Your task to perform on an android device: turn off data saver in the chrome app Image 0: 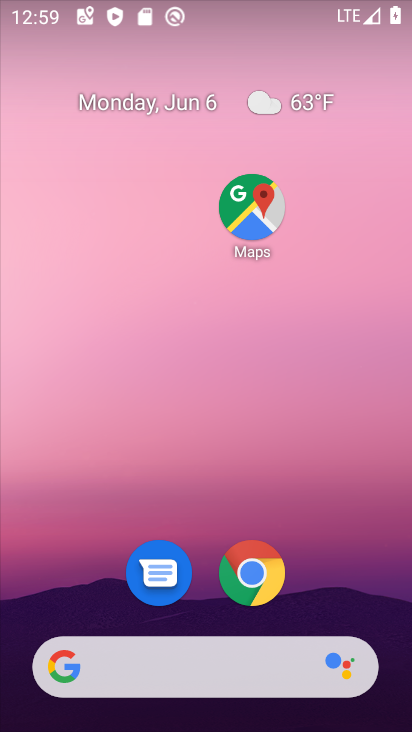
Step 0: drag from (222, 517) to (205, 0)
Your task to perform on an android device: turn off data saver in the chrome app Image 1: 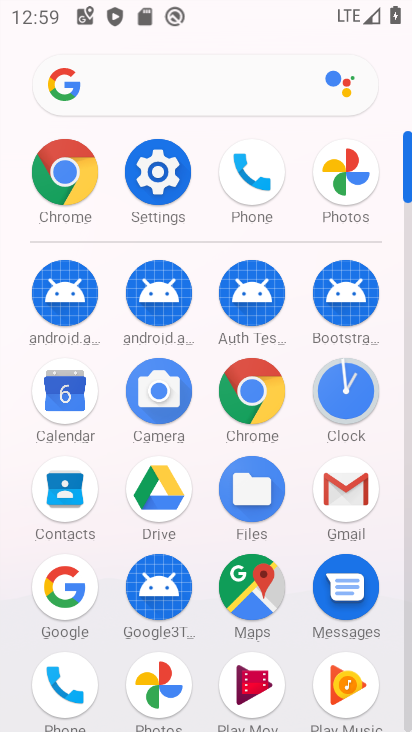
Step 1: click (237, 402)
Your task to perform on an android device: turn off data saver in the chrome app Image 2: 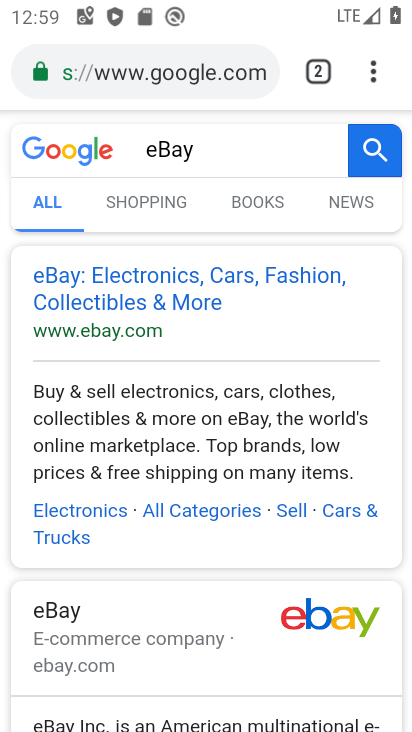
Step 2: click (376, 72)
Your task to perform on an android device: turn off data saver in the chrome app Image 3: 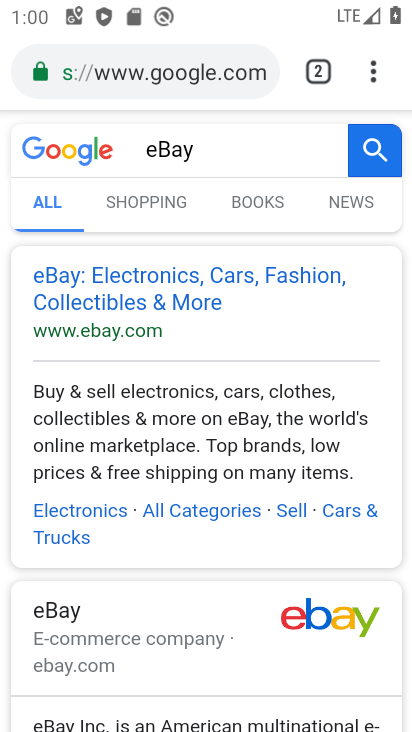
Step 3: click (370, 73)
Your task to perform on an android device: turn off data saver in the chrome app Image 4: 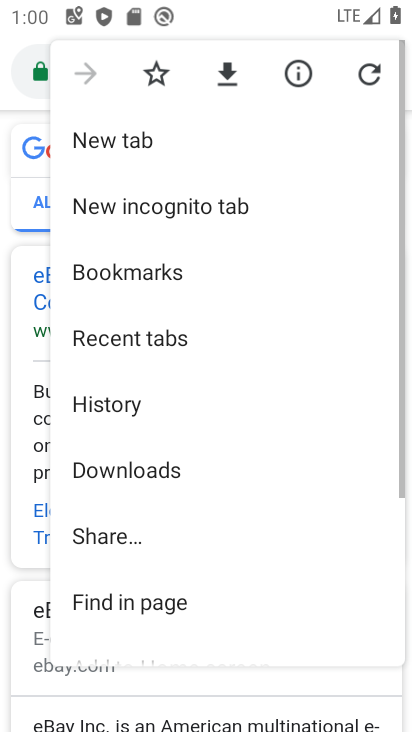
Step 4: drag from (152, 503) to (127, 72)
Your task to perform on an android device: turn off data saver in the chrome app Image 5: 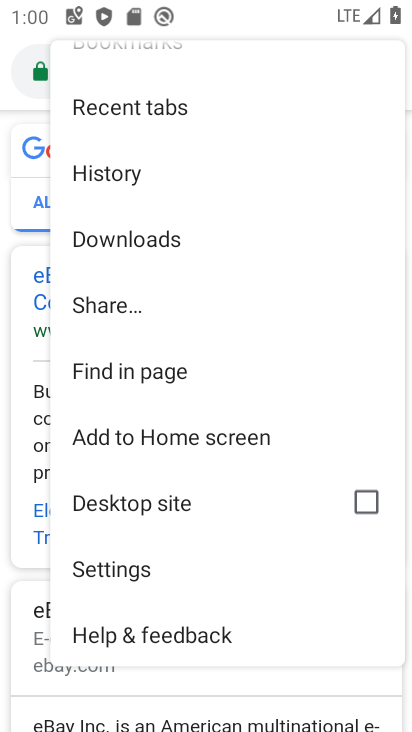
Step 5: click (124, 573)
Your task to perform on an android device: turn off data saver in the chrome app Image 6: 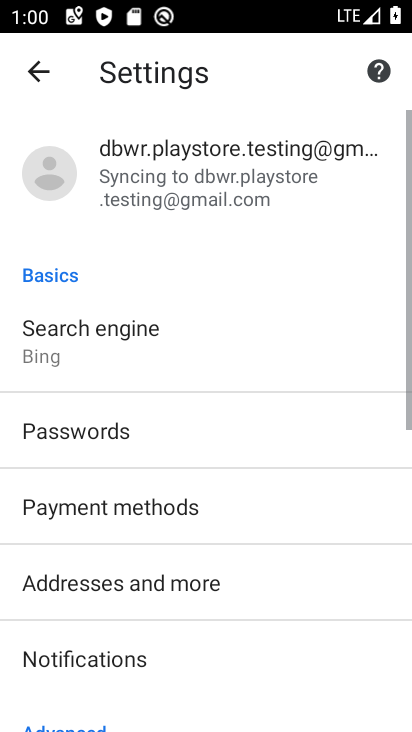
Step 6: task complete